Your task to perform on an android device: make emails show in primary in the gmail app Image 0: 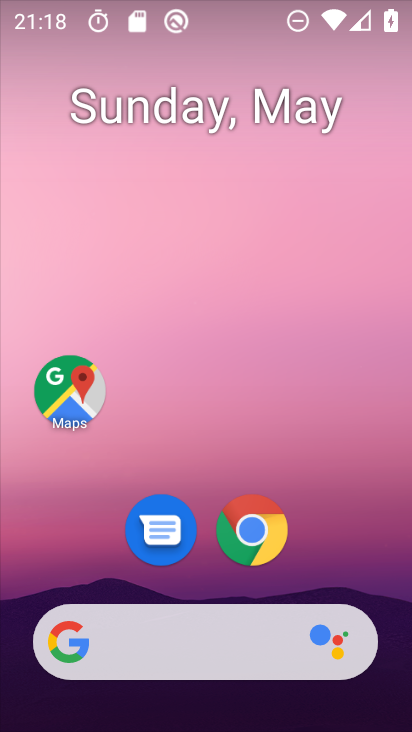
Step 0: press home button
Your task to perform on an android device: make emails show in primary in the gmail app Image 1: 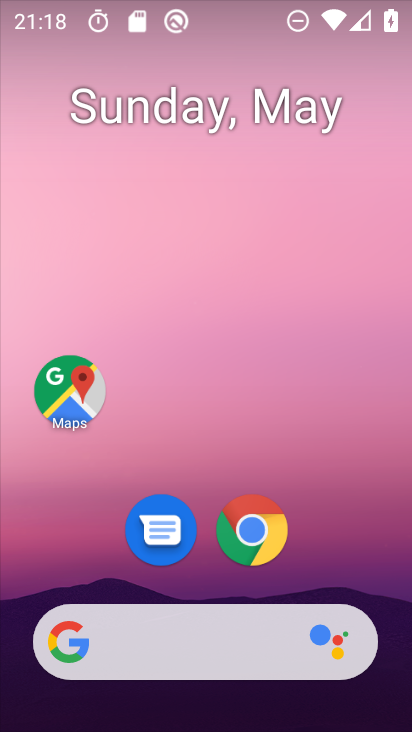
Step 1: drag from (207, 671) to (176, 148)
Your task to perform on an android device: make emails show in primary in the gmail app Image 2: 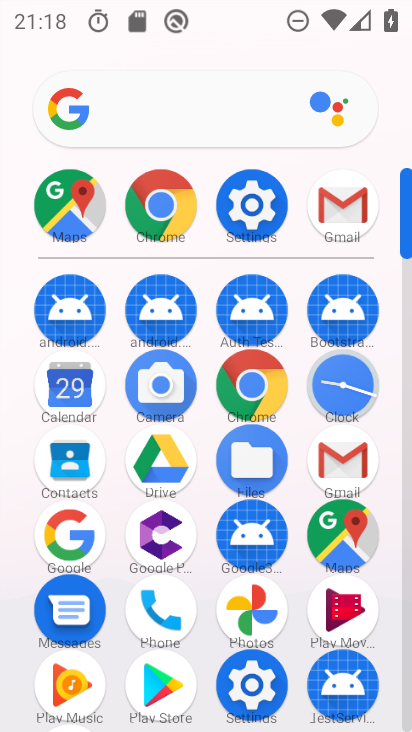
Step 2: click (222, 213)
Your task to perform on an android device: make emails show in primary in the gmail app Image 3: 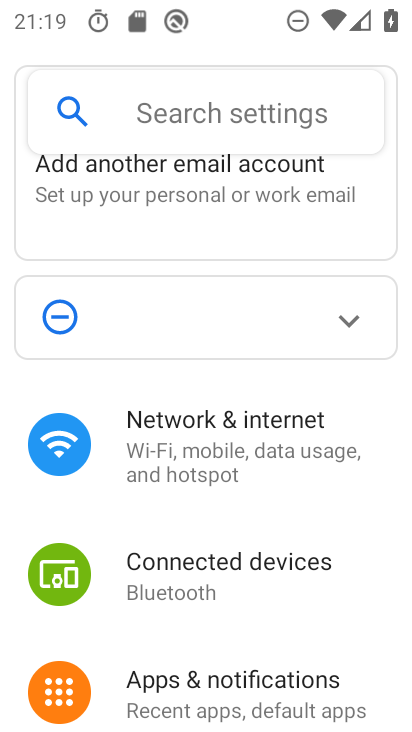
Step 3: press home button
Your task to perform on an android device: make emails show in primary in the gmail app Image 4: 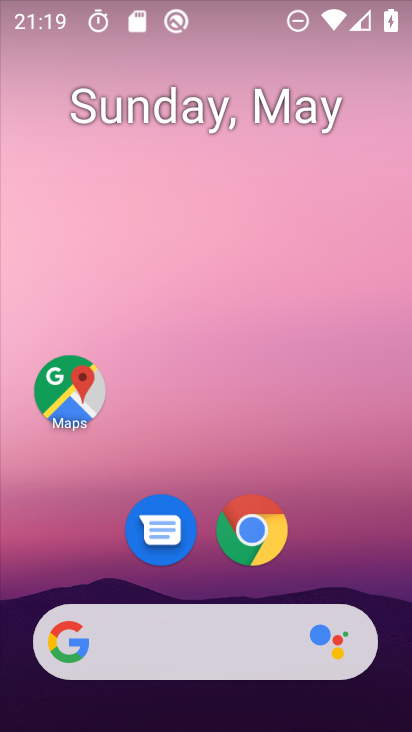
Step 4: drag from (287, 688) to (289, 193)
Your task to perform on an android device: make emails show in primary in the gmail app Image 5: 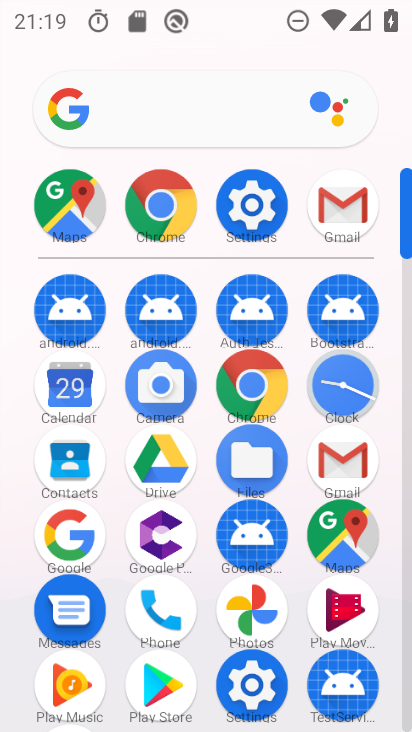
Step 5: click (344, 202)
Your task to perform on an android device: make emails show in primary in the gmail app Image 6: 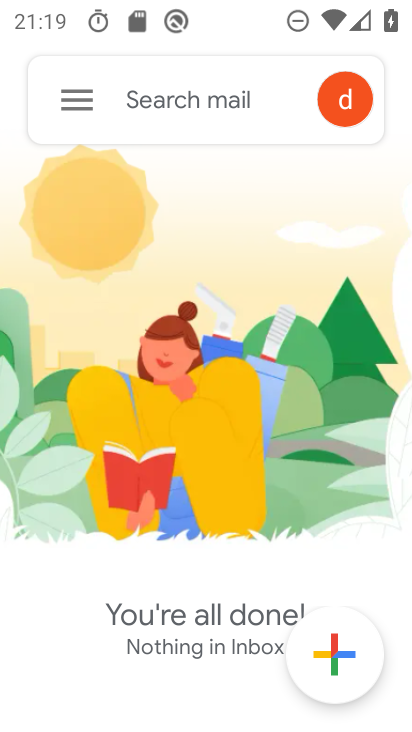
Step 6: click (80, 115)
Your task to perform on an android device: make emails show in primary in the gmail app Image 7: 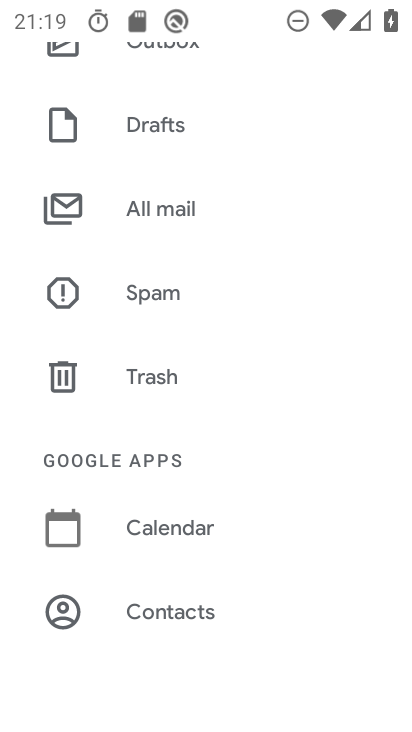
Step 7: drag from (114, 445) to (165, 237)
Your task to perform on an android device: make emails show in primary in the gmail app Image 8: 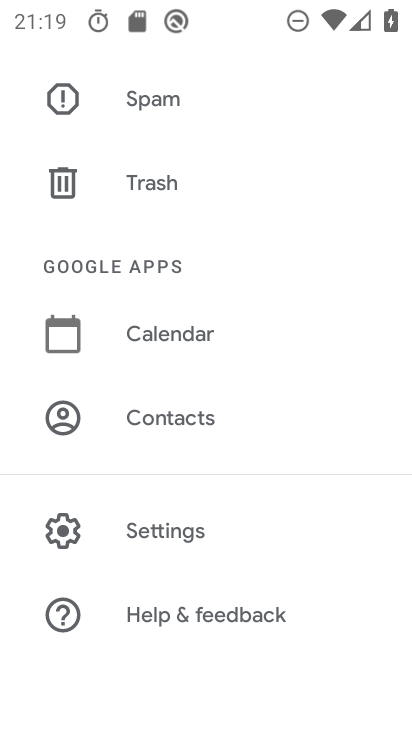
Step 8: click (159, 523)
Your task to perform on an android device: make emails show in primary in the gmail app Image 9: 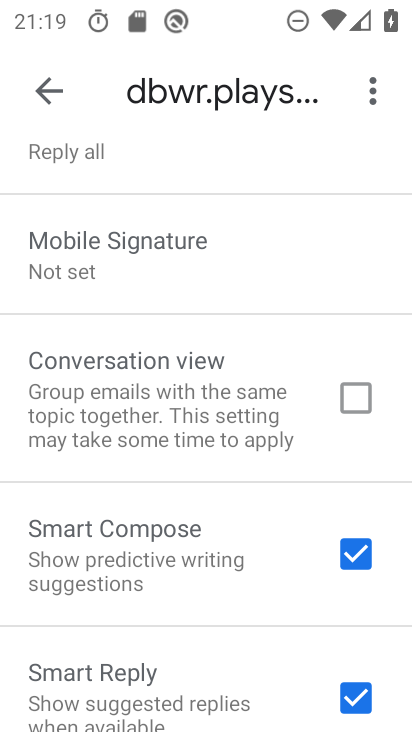
Step 9: drag from (123, 246) to (82, 592)
Your task to perform on an android device: make emails show in primary in the gmail app Image 10: 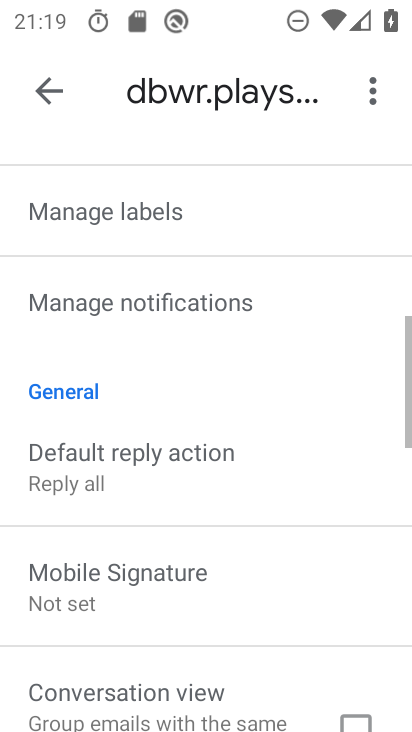
Step 10: drag from (98, 245) to (79, 434)
Your task to perform on an android device: make emails show in primary in the gmail app Image 11: 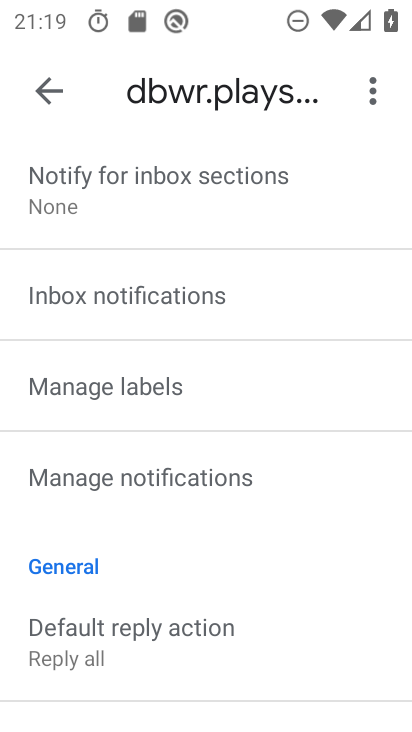
Step 11: drag from (95, 358) to (87, 510)
Your task to perform on an android device: make emails show in primary in the gmail app Image 12: 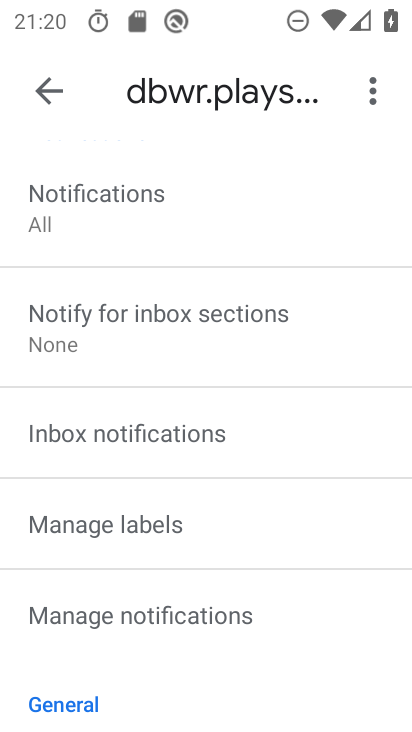
Step 12: drag from (96, 227) to (61, 513)
Your task to perform on an android device: make emails show in primary in the gmail app Image 13: 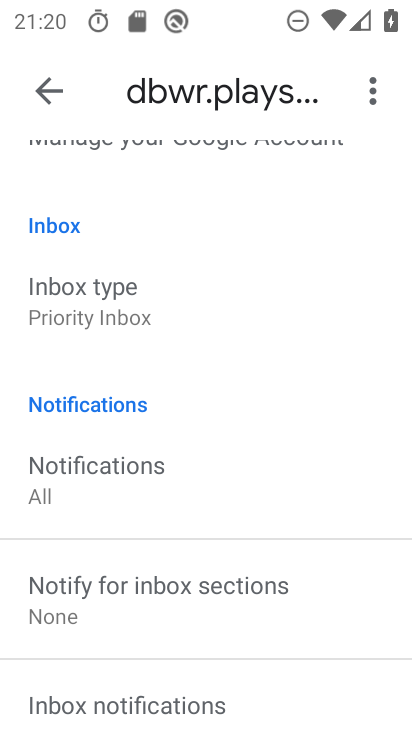
Step 13: drag from (122, 230) to (116, 430)
Your task to perform on an android device: make emails show in primary in the gmail app Image 14: 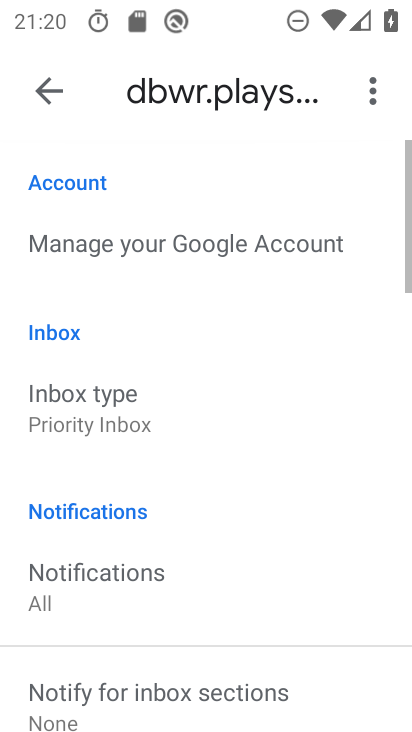
Step 14: click (112, 384)
Your task to perform on an android device: make emails show in primary in the gmail app Image 15: 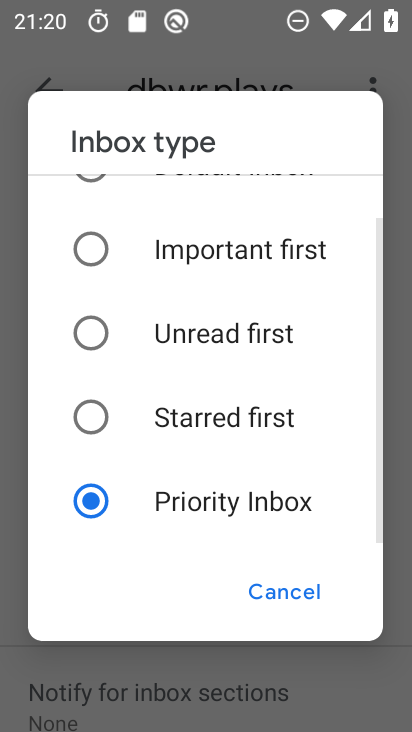
Step 15: drag from (158, 235) to (132, 428)
Your task to perform on an android device: make emails show in primary in the gmail app Image 16: 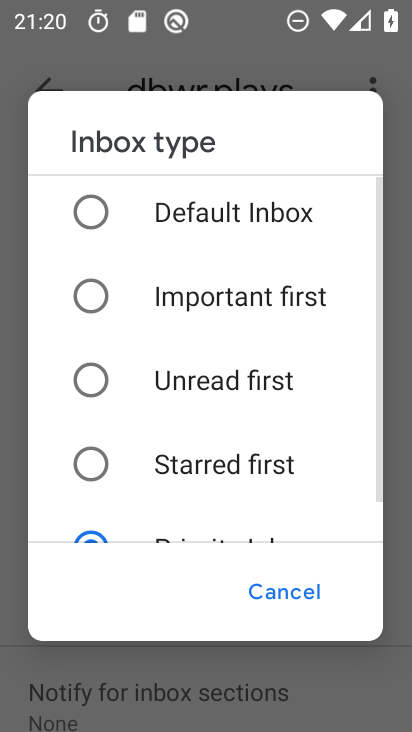
Step 16: click (152, 225)
Your task to perform on an android device: make emails show in primary in the gmail app Image 17: 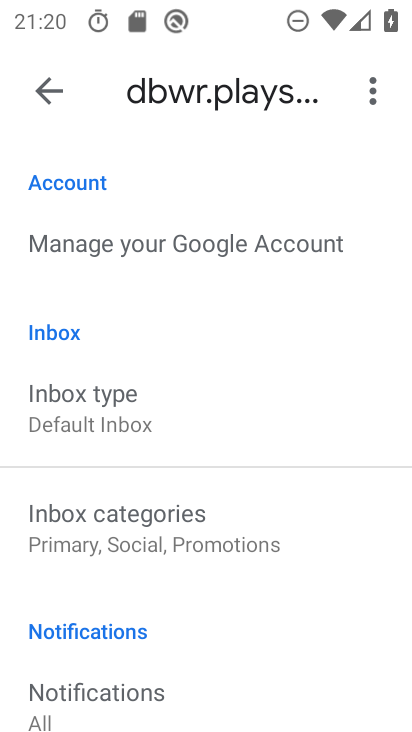
Step 17: click (116, 508)
Your task to perform on an android device: make emails show in primary in the gmail app Image 18: 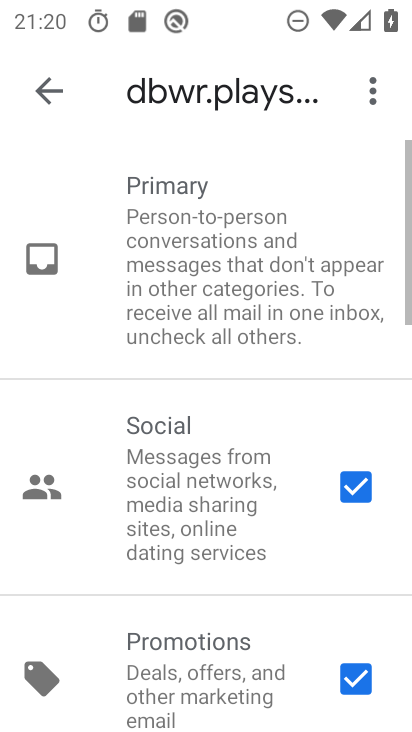
Step 18: click (189, 260)
Your task to perform on an android device: make emails show in primary in the gmail app Image 19: 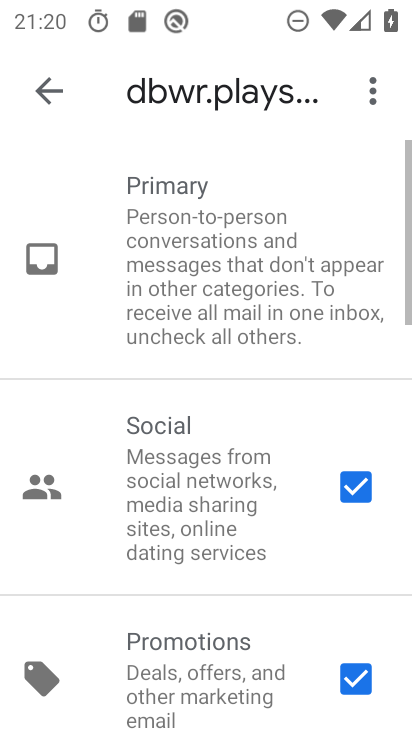
Step 19: task complete